Your task to perform on an android device: open app "Booking.com: Hotels and more" (install if not already installed) and go to login screen Image 0: 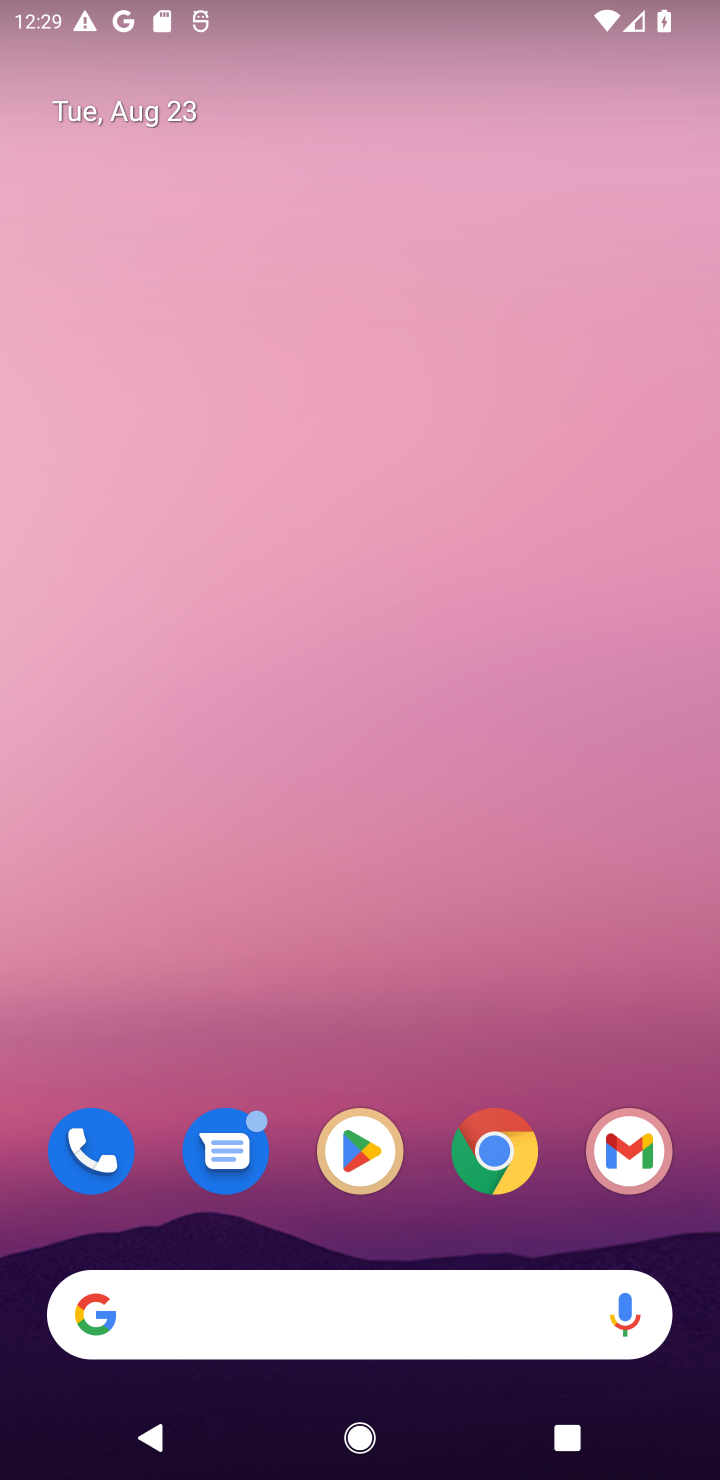
Step 0: click (374, 1130)
Your task to perform on an android device: open app "Booking.com: Hotels and more" (install if not already installed) and go to login screen Image 1: 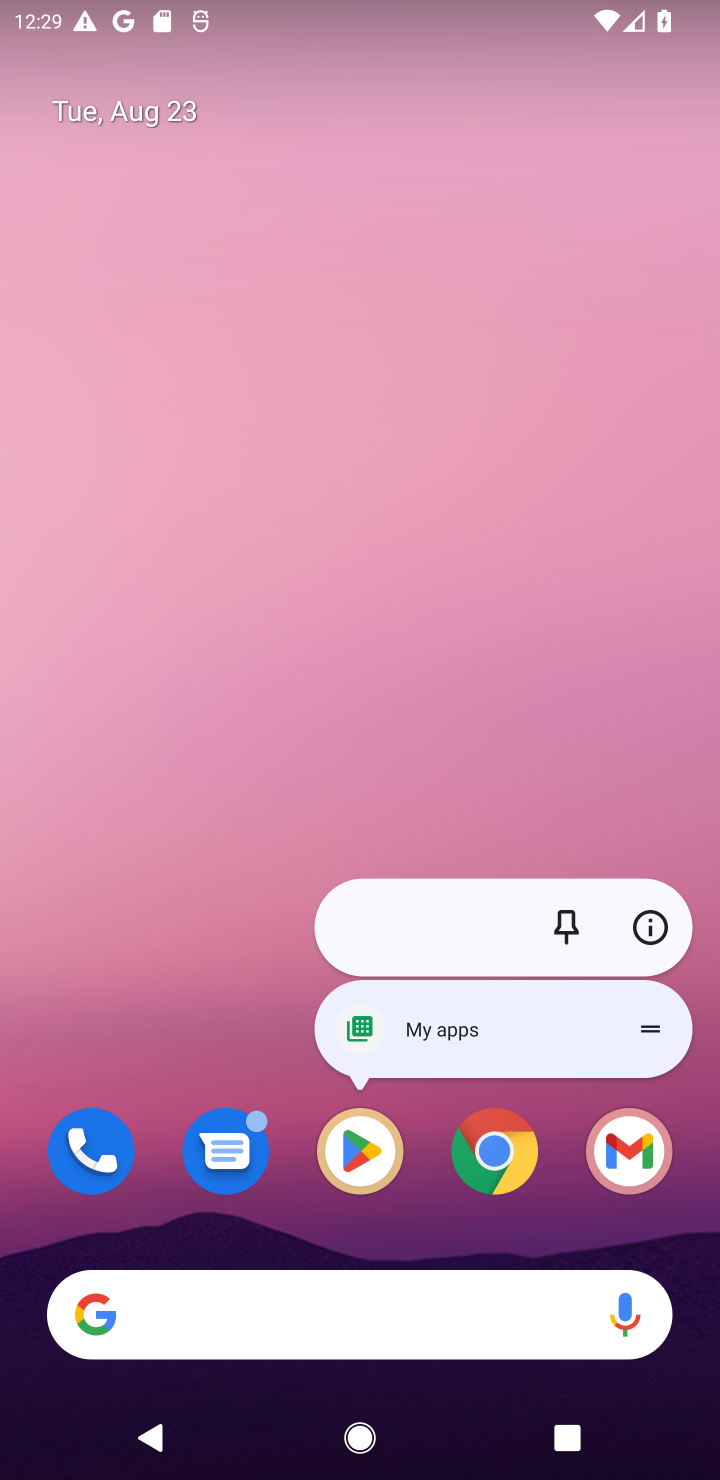
Step 1: click (381, 1170)
Your task to perform on an android device: open app "Booking.com: Hotels and more" (install if not already installed) and go to login screen Image 2: 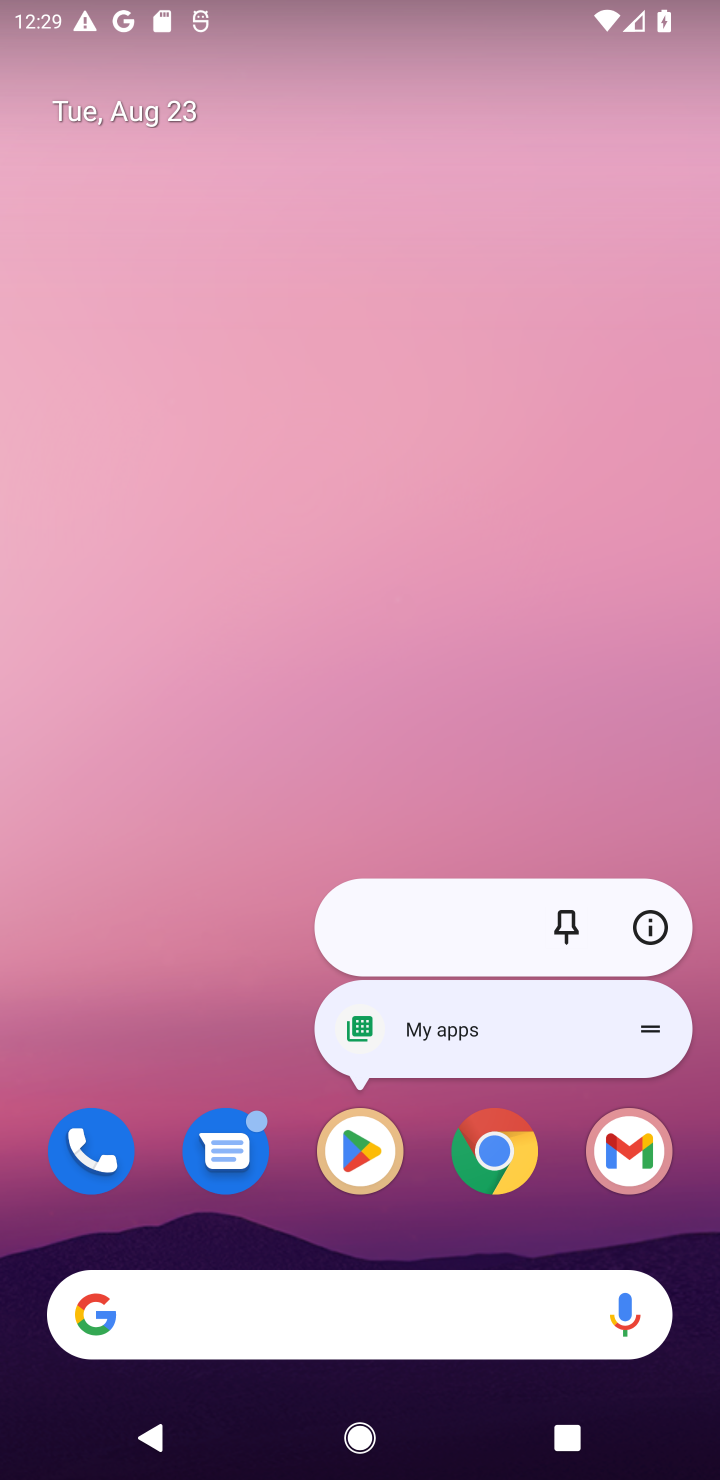
Step 2: click (381, 1170)
Your task to perform on an android device: open app "Booking.com: Hotels and more" (install if not already installed) and go to login screen Image 3: 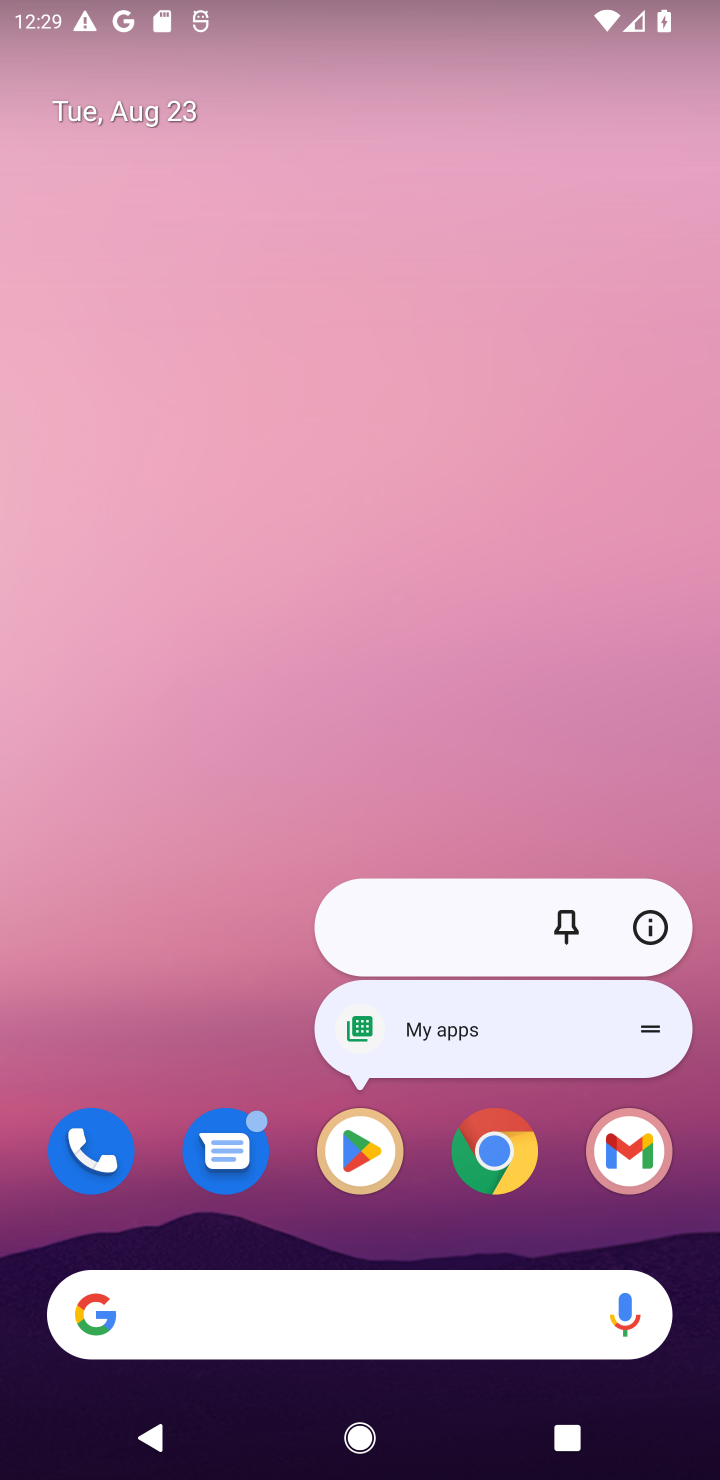
Step 3: click (344, 1148)
Your task to perform on an android device: open app "Booking.com: Hotels and more" (install if not already installed) and go to login screen Image 4: 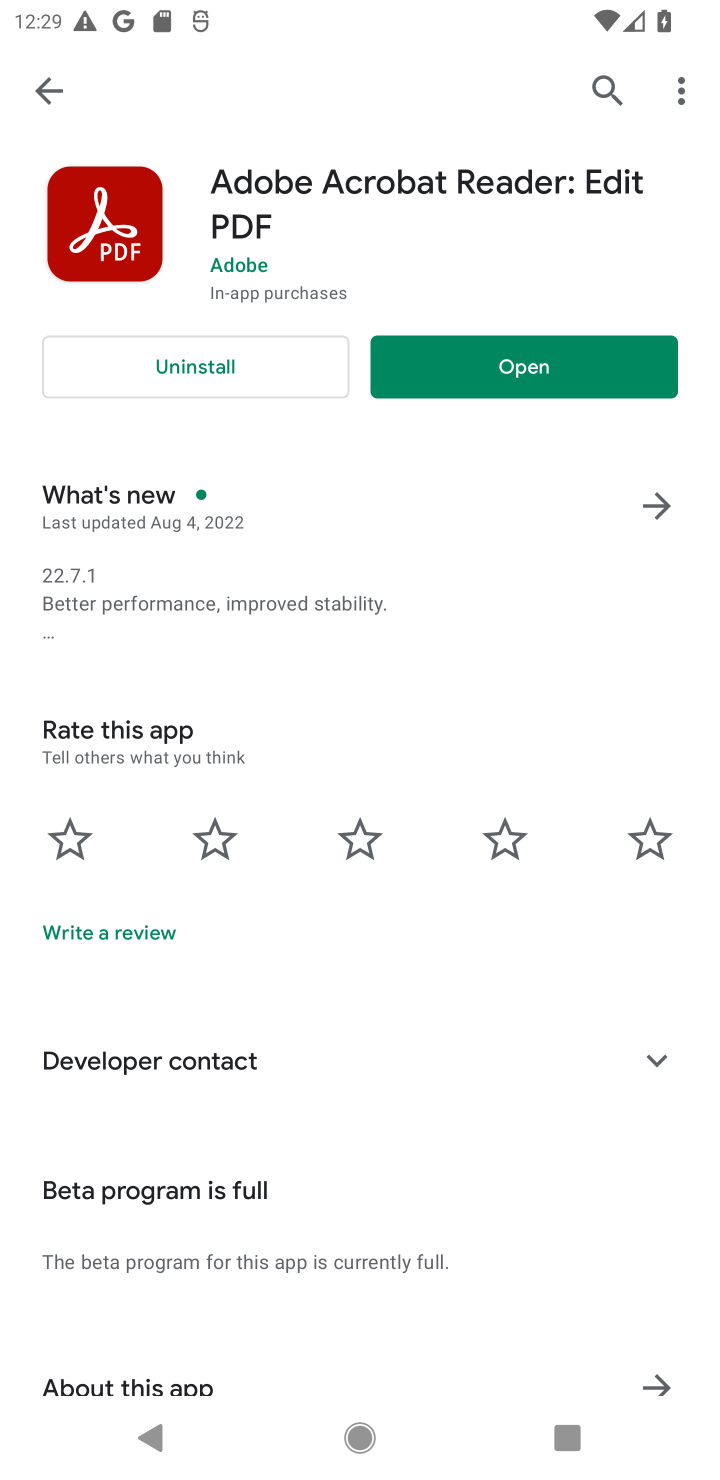
Step 4: click (601, 82)
Your task to perform on an android device: open app "Booking.com: Hotels and more" (install if not already installed) and go to login screen Image 5: 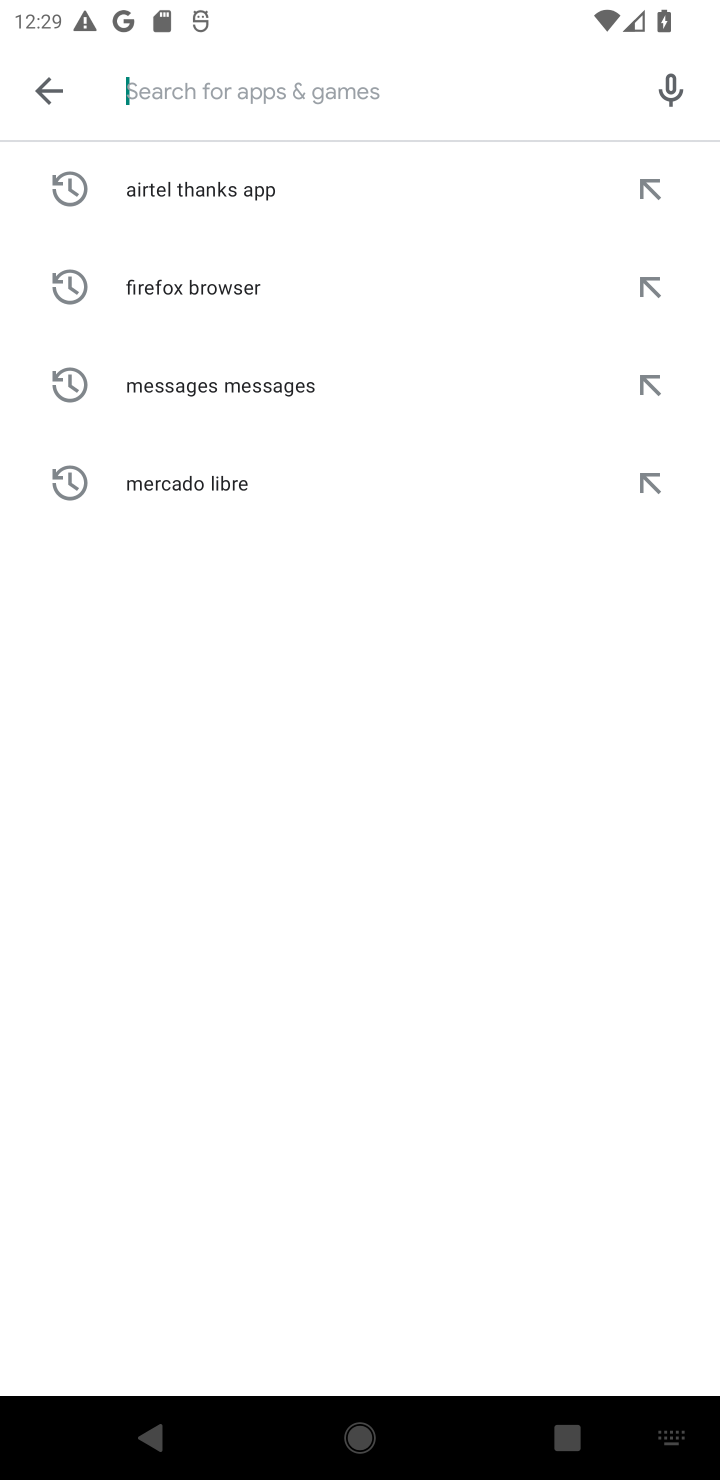
Step 5: type "Booking.com: Hotels and more"
Your task to perform on an android device: open app "Booking.com: Hotels and more" (install if not already installed) and go to login screen Image 6: 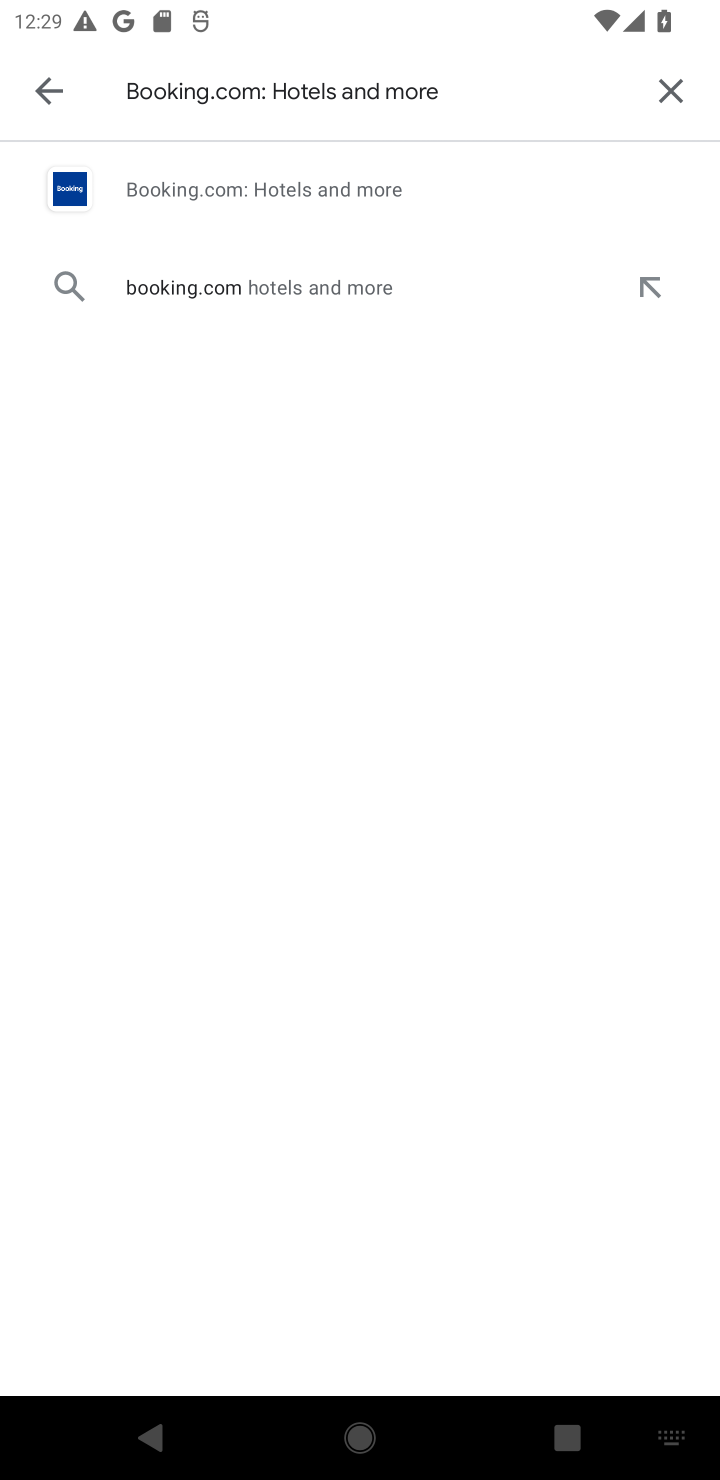
Step 6: click (451, 175)
Your task to perform on an android device: open app "Booking.com: Hotels and more" (install if not already installed) and go to login screen Image 7: 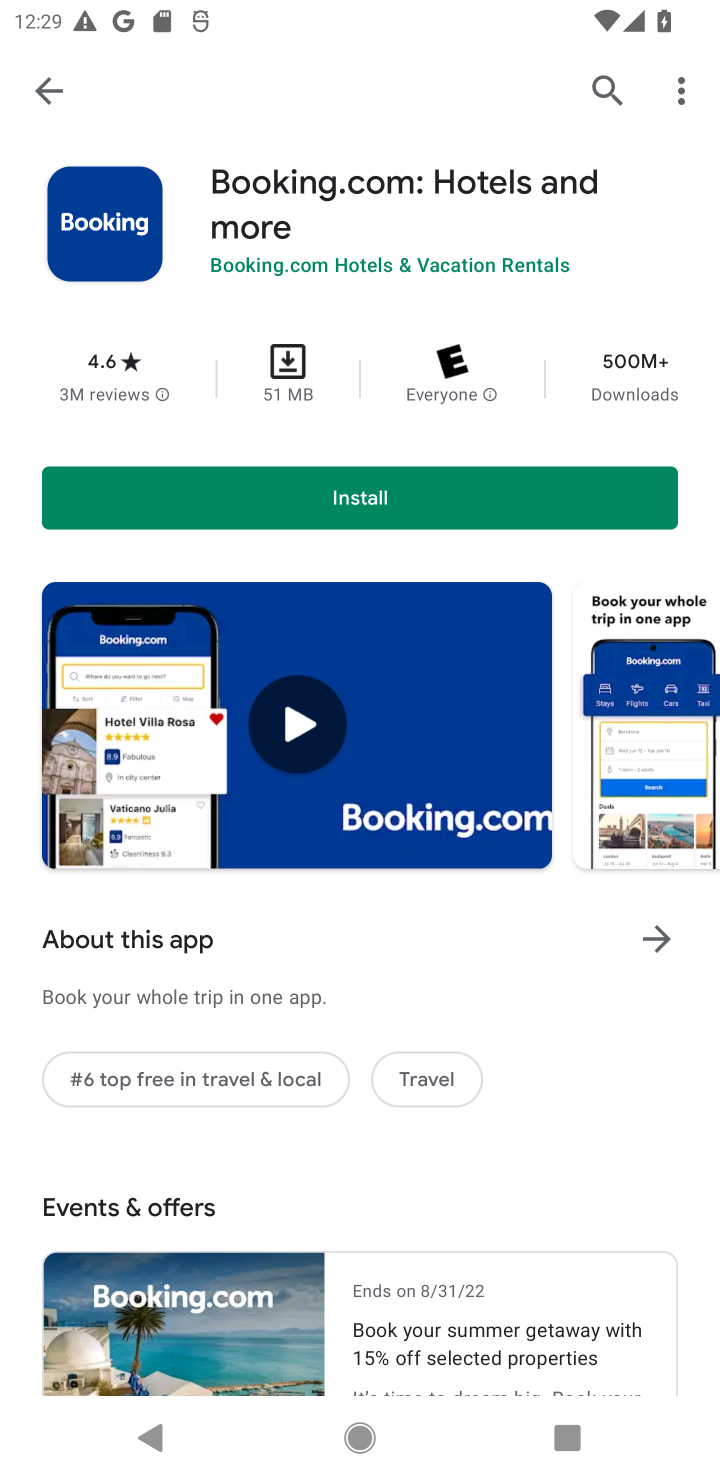
Step 7: task complete